Your task to perform on an android device: Go to ESPN.com Image 0: 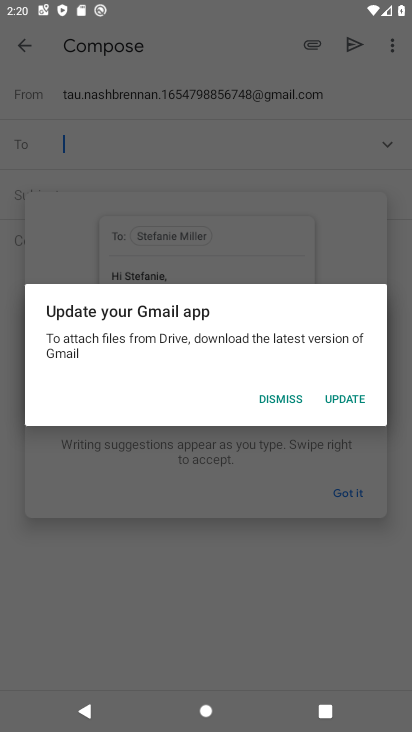
Step 0: press back button
Your task to perform on an android device: Go to ESPN.com Image 1: 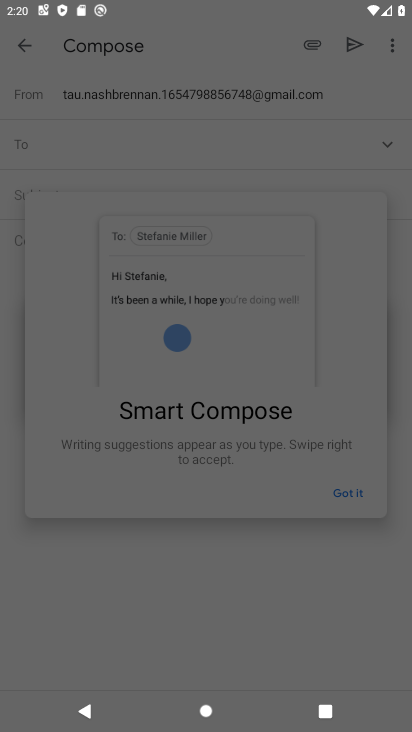
Step 1: press home button
Your task to perform on an android device: Go to ESPN.com Image 2: 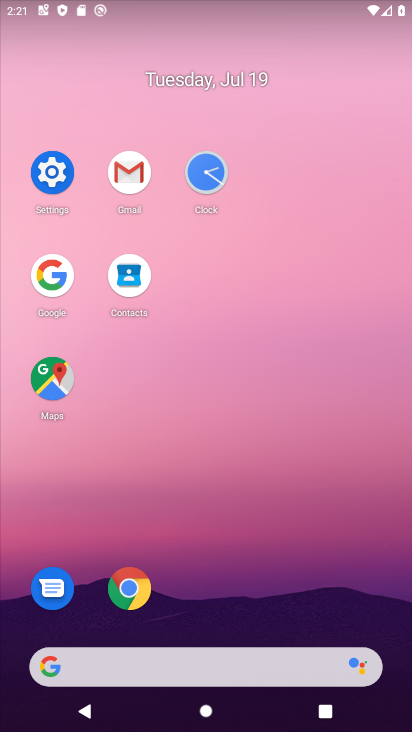
Step 2: click (132, 588)
Your task to perform on an android device: Go to ESPN.com Image 3: 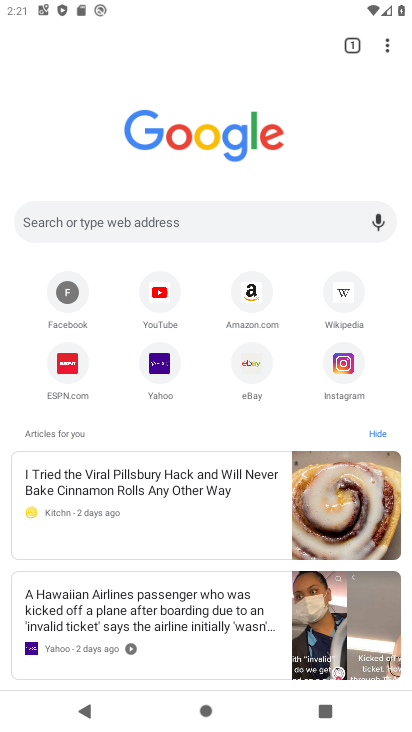
Step 3: click (73, 367)
Your task to perform on an android device: Go to ESPN.com Image 4: 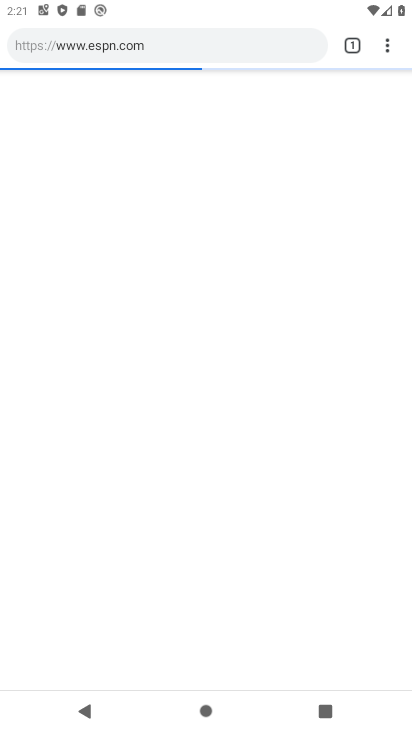
Step 4: task complete